Your task to perform on an android device: move a message to another label in the gmail app Image 0: 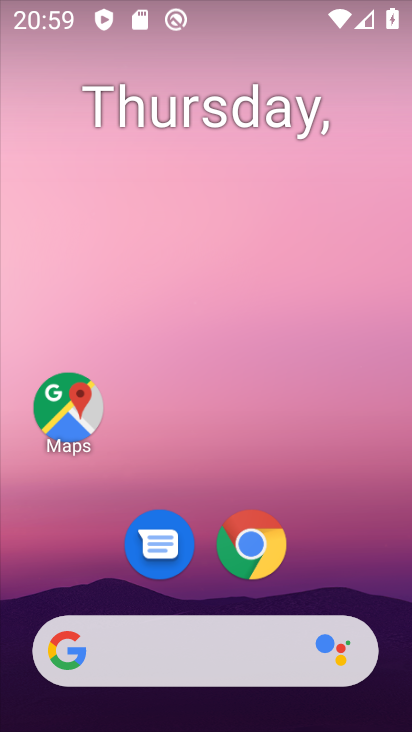
Step 0: click (263, 534)
Your task to perform on an android device: move a message to another label in the gmail app Image 1: 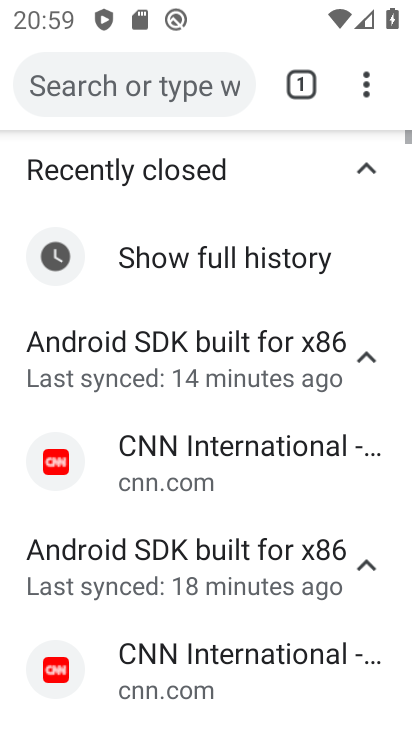
Step 1: press home button
Your task to perform on an android device: move a message to another label in the gmail app Image 2: 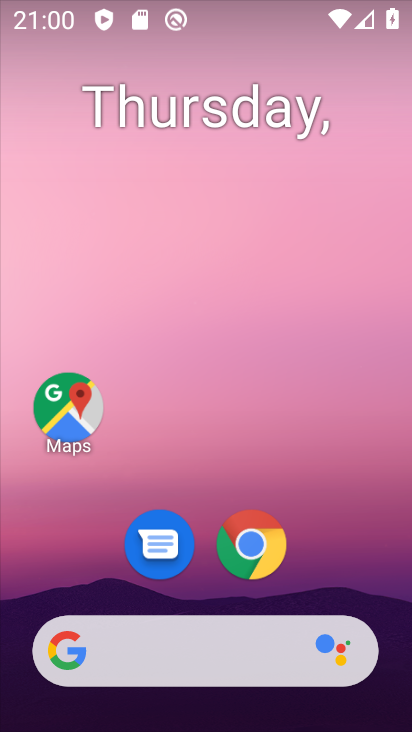
Step 2: drag from (186, 598) to (280, 106)
Your task to perform on an android device: move a message to another label in the gmail app Image 3: 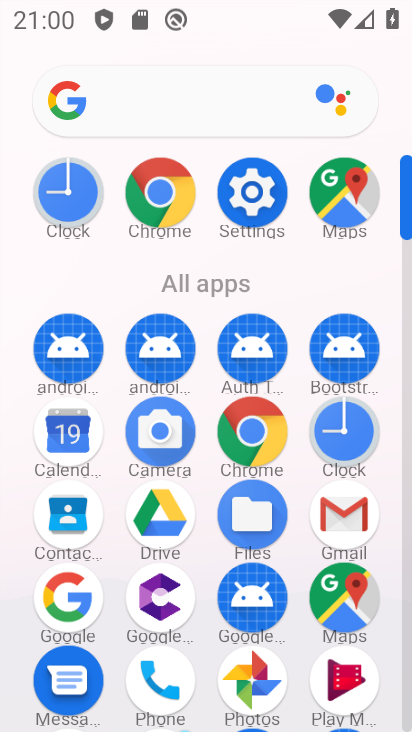
Step 3: click (344, 507)
Your task to perform on an android device: move a message to another label in the gmail app Image 4: 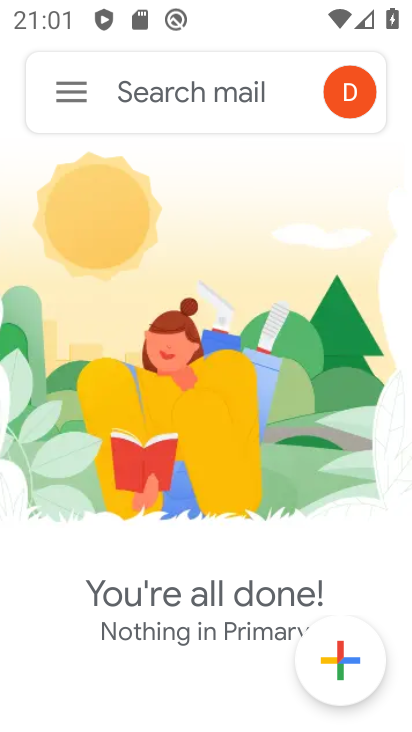
Step 4: task complete